Your task to perform on an android device: toggle sleep mode Image 0: 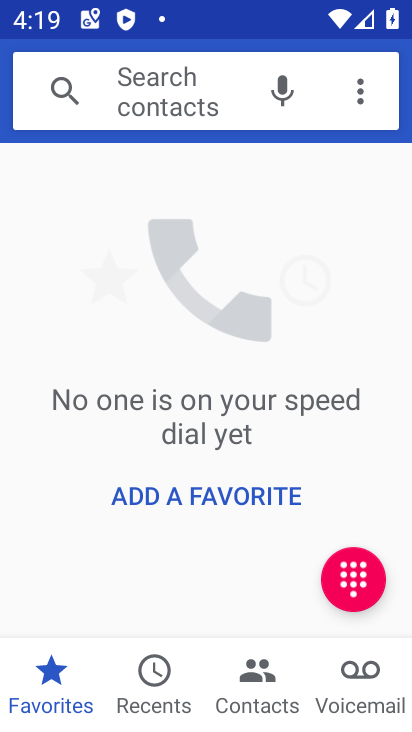
Step 0: press home button
Your task to perform on an android device: toggle sleep mode Image 1: 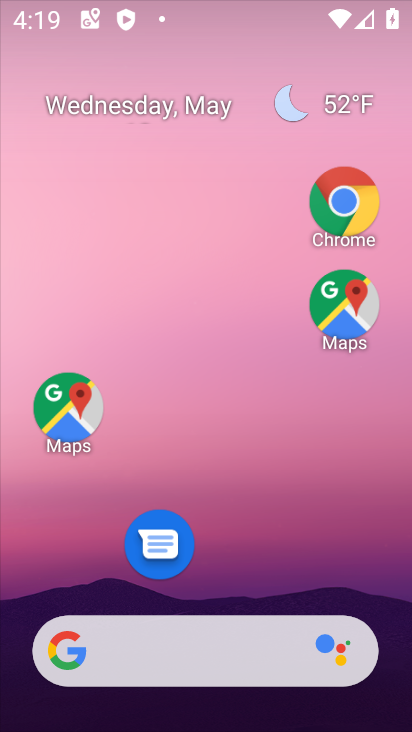
Step 1: drag from (301, 567) to (287, 107)
Your task to perform on an android device: toggle sleep mode Image 2: 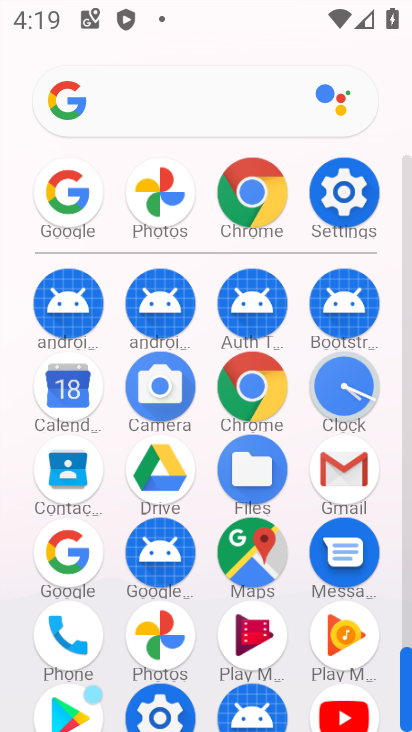
Step 2: click (354, 174)
Your task to perform on an android device: toggle sleep mode Image 3: 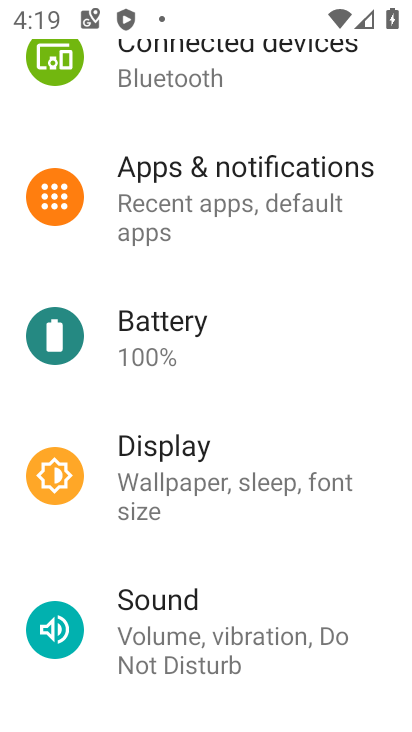
Step 3: task complete